Your task to perform on an android device: find snoozed emails in the gmail app Image 0: 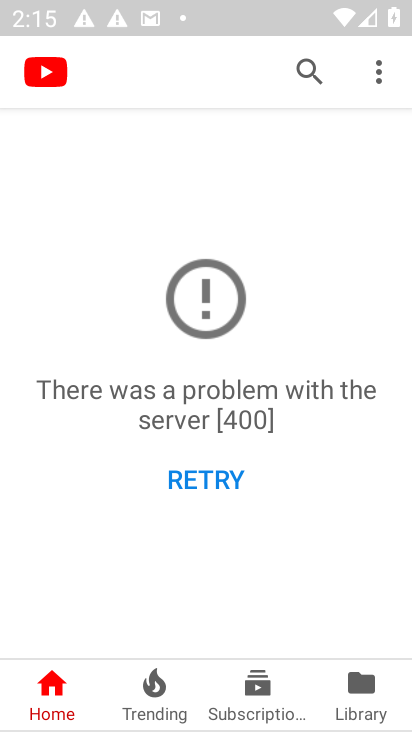
Step 0: press home button
Your task to perform on an android device: find snoozed emails in the gmail app Image 1: 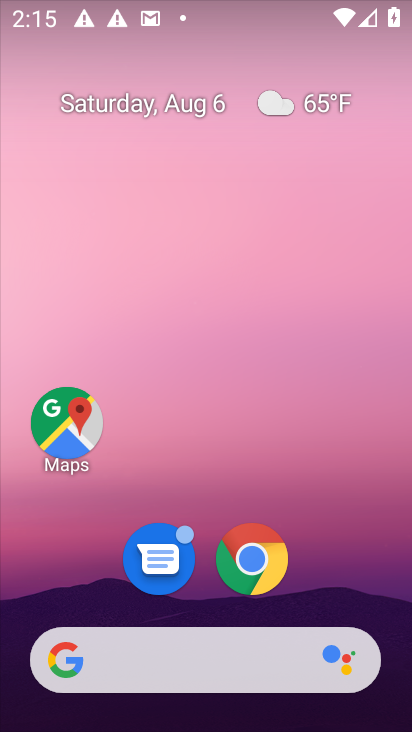
Step 1: drag from (212, 505) to (200, 167)
Your task to perform on an android device: find snoozed emails in the gmail app Image 2: 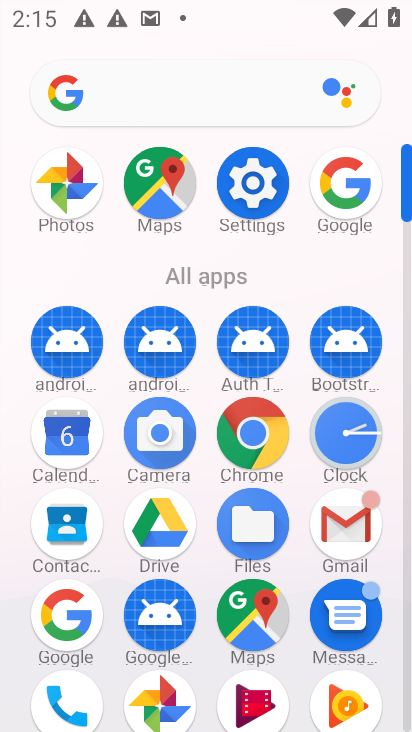
Step 2: click (356, 528)
Your task to perform on an android device: find snoozed emails in the gmail app Image 3: 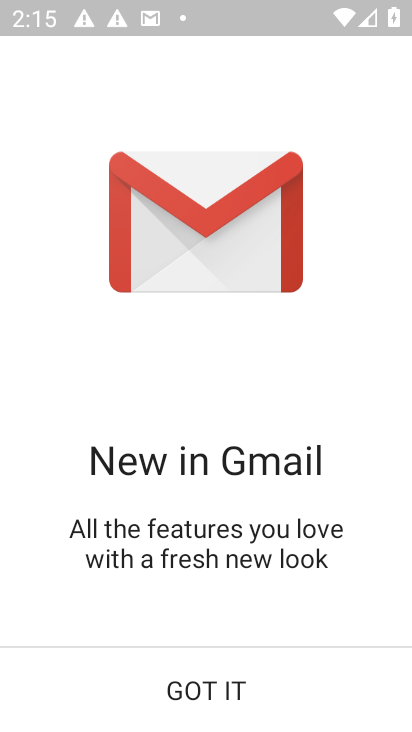
Step 3: click (310, 699)
Your task to perform on an android device: find snoozed emails in the gmail app Image 4: 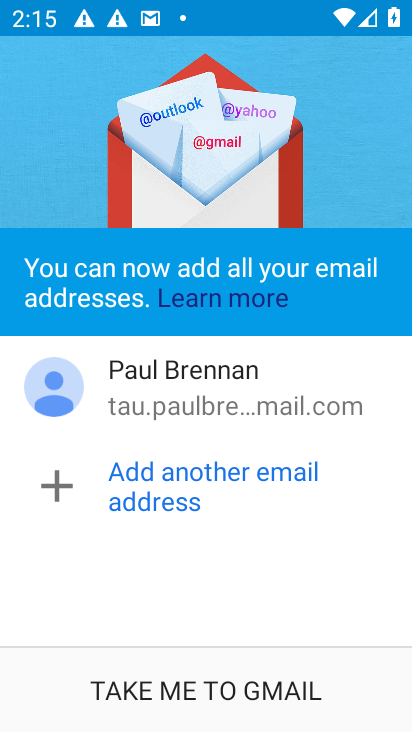
Step 4: click (308, 698)
Your task to perform on an android device: find snoozed emails in the gmail app Image 5: 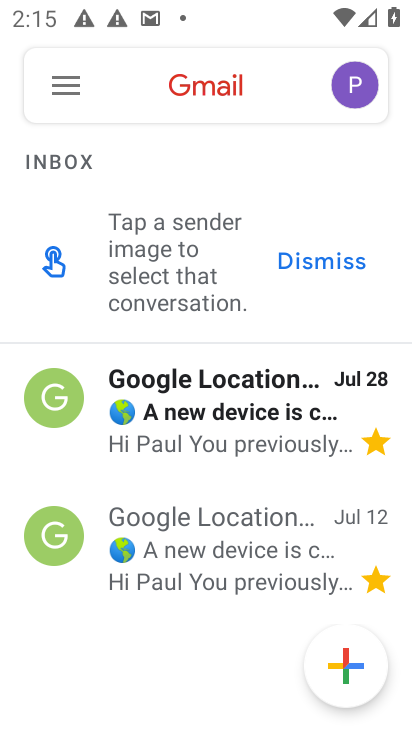
Step 5: click (69, 91)
Your task to perform on an android device: find snoozed emails in the gmail app Image 6: 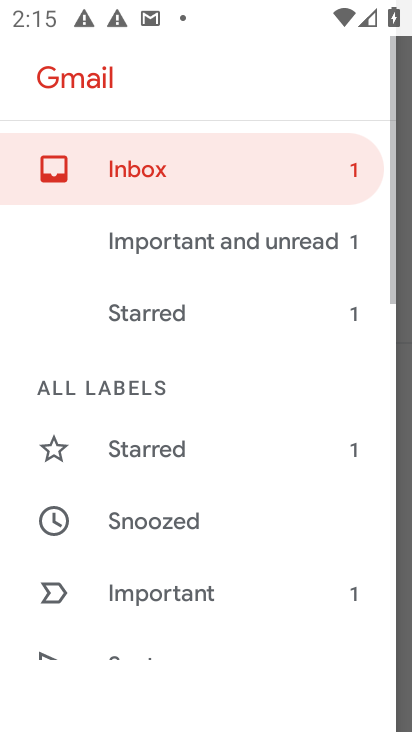
Step 6: click (200, 519)
Your task to perform on an android device: find snoozed emails in the gmail app Image 7: 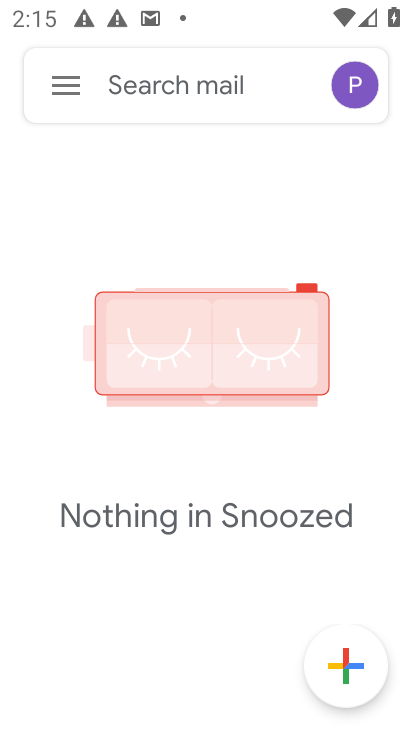
Step 7: task complete